Your task to perform on an android device: turn pop-ups on in chrome Image 0: 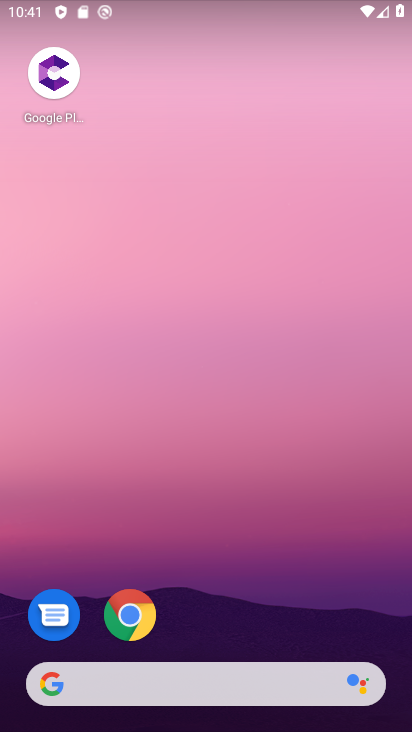
Step 0: click (139, 604)
Your task to perform on an android device: turn pop-ups on in chrome Image 1: 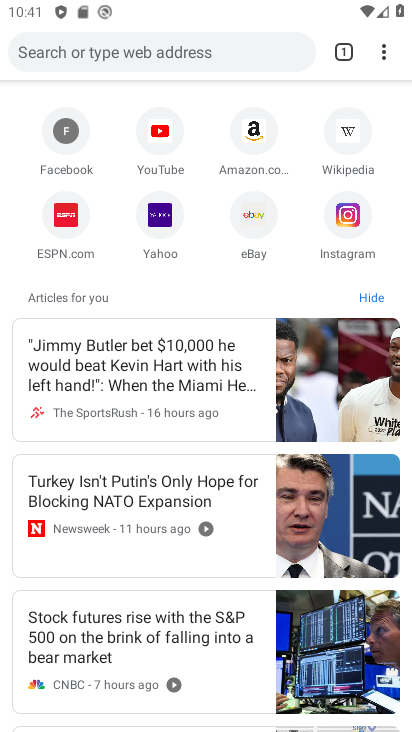
Step 1: click (390, 51)
Your task to perform on an android device: turn pop-ups on in chrome Image 2: 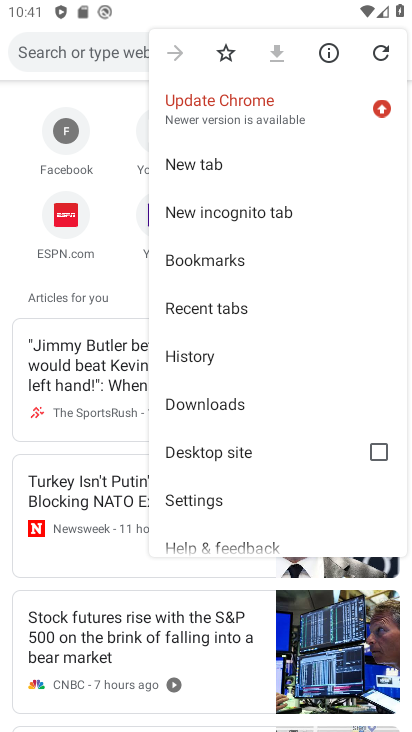
Step 2: click (199, 494)
Your task to perform on an android device: turn pop-ups on in chrome Image 3: 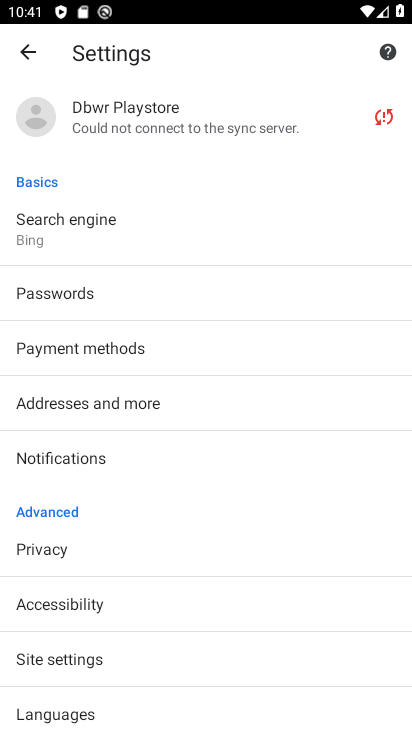
Step 3: drag from (212, 526) to (205, 378)
Your task to perform on an android device: turn pop-ups on in chrome Image 4: 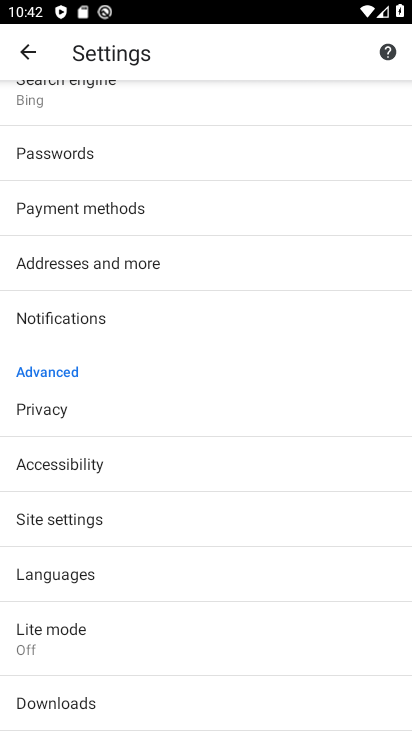
Step 4: click (81, 512)
Your task to perform on an android device: turn pop-ups on in chrome Image 5: 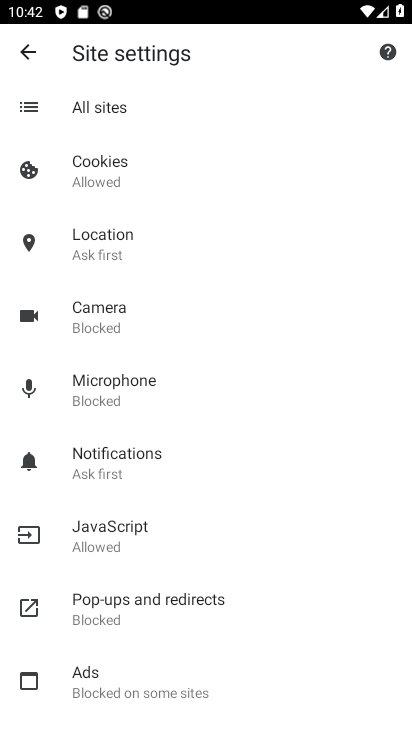
Step 5: click (120, 600)
Your task to perform on an android device: turn pop-ups on in chrome Image 6: 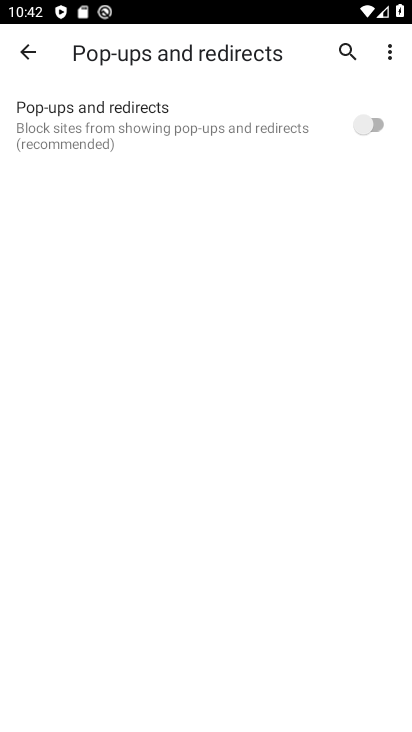
Step 6: click (361, 128)
Your task to perform on an android device: turn pop-ups on in chrome Image 7: 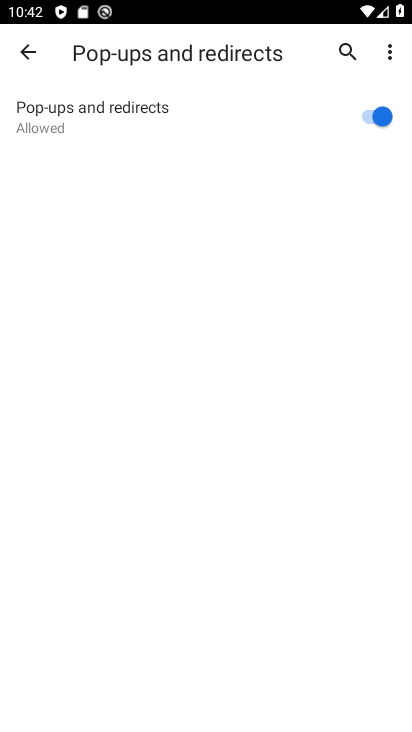
Step 7: task complete